Your task to perform on an android device: change keyboard looks Image 0: 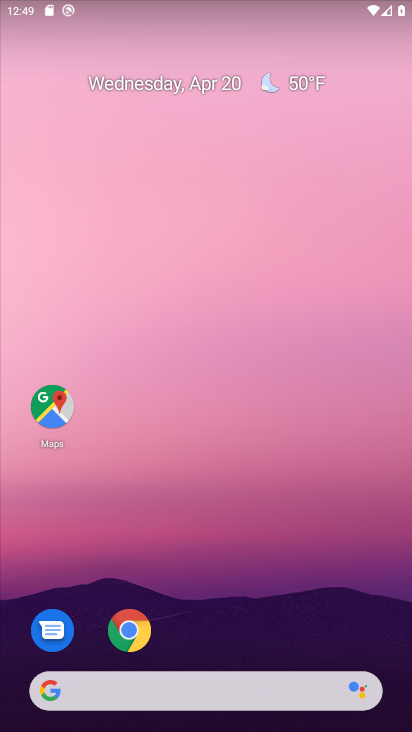
Step 0: drag from (224, 625) to (231, 106)
Your task to perform on an android device: change keyboard looks Image 1: 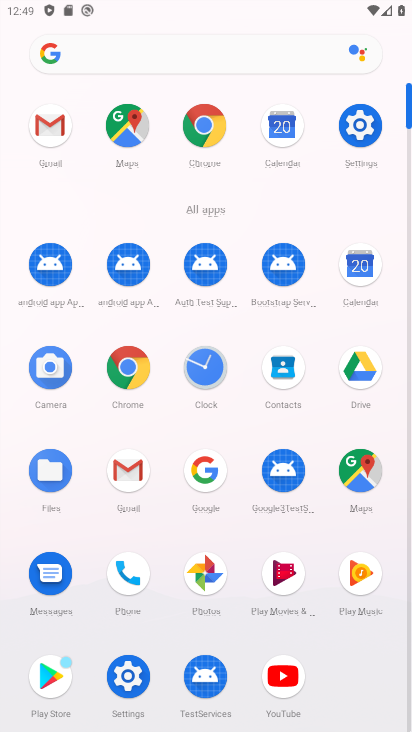
Step 1: click (125, 676)
Your task to perform on an android device: change keyboard looks Image 2: 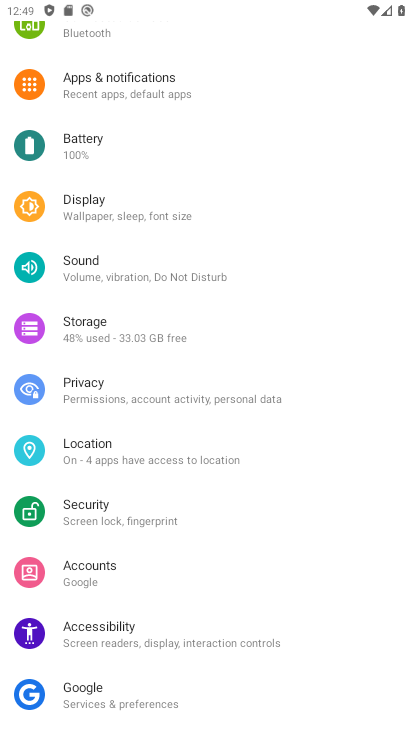
Step 2: drag from (173, 578) to (186, 354)
Your task to perform on an android device: change keyboard looks Image 3: 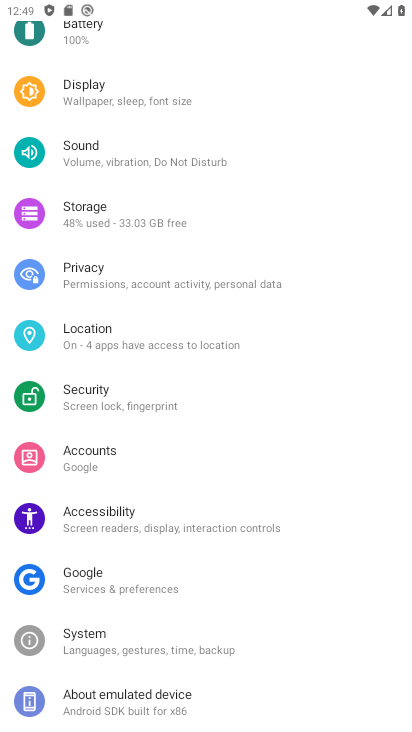
Step 3: click (95, 639)
Your task to perform on an android device: change keyboard looks Image 4: 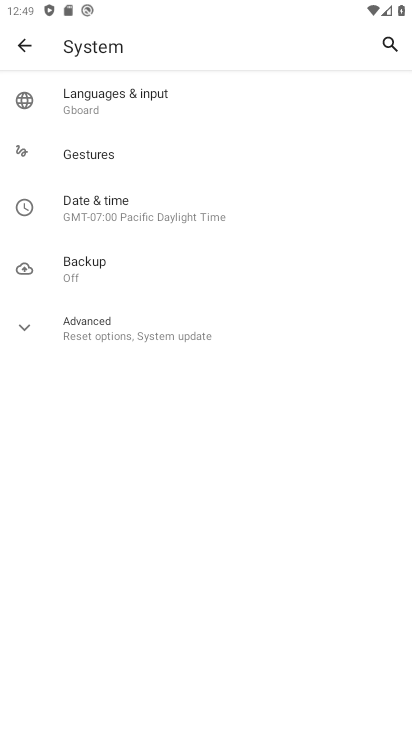
Step 4: click (137, 105)
Your task to perform on an android device: change keyboard looks Image 5: 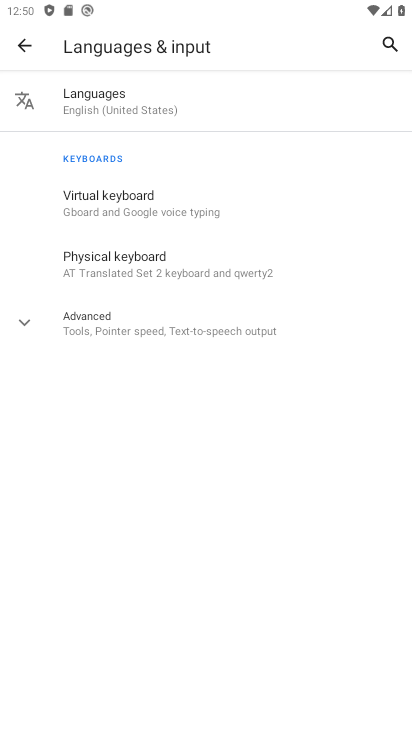
Step 5: click (112, 200)
Your task to perform on an android device: change keyboard looks Image 6: 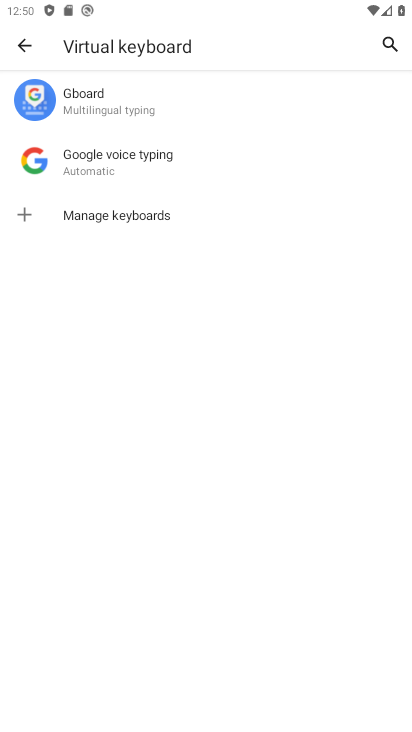
Step 6: click (111, 116)
Your task to perform on an android device: change keyboard looks Image 7: 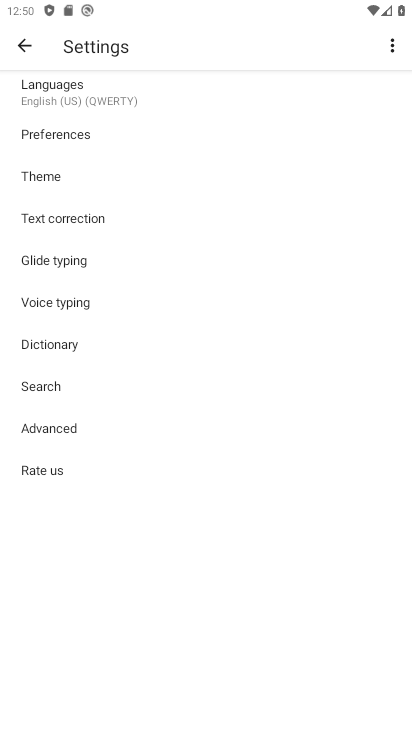
Step 7: click (88, 183)
Your task to perform on an android device: change keyboard looks Image 8: 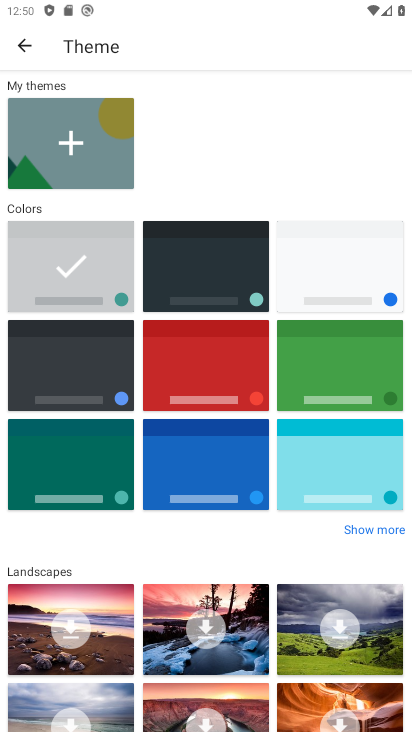
Step 8: click (171, 264)
Your task to perform on an android device: change keyboard looks Image 9: 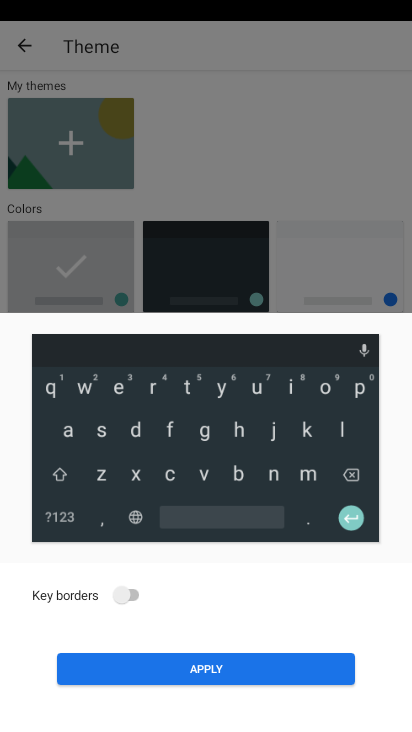
Step 9: click (158, 670)
Your task to perform on an android device: change keyboard looks Image 10: 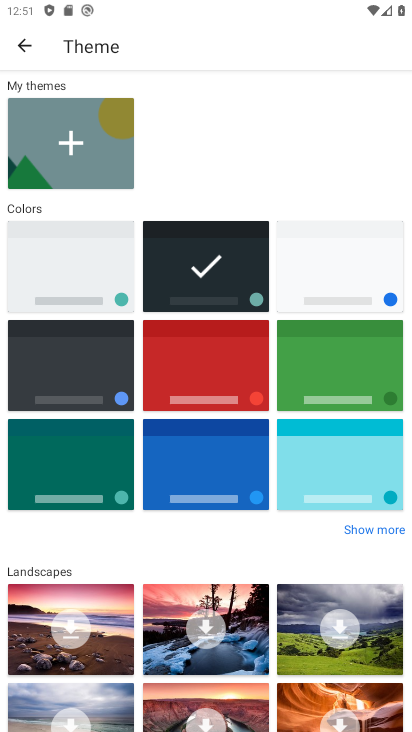
Step 10: task complete